Your task to perform on an android device: Go to Reddit.com Image 0: 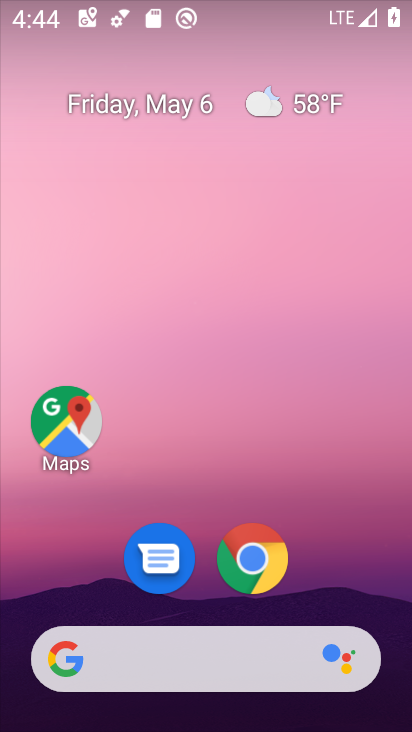
Step 0: drag from (342, 620) to (358, 82)
Your task to perform on an android device: Go to Reddit.com Image 1: 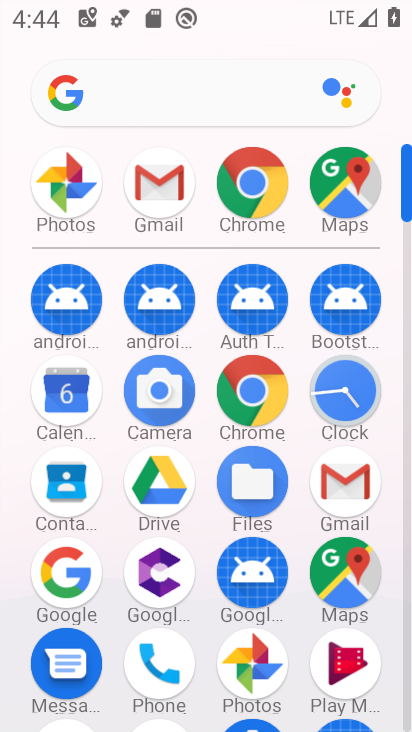
Step 1: click (239, 386)
Your task to perform on an android device: Go to Reddit.com Image 2: 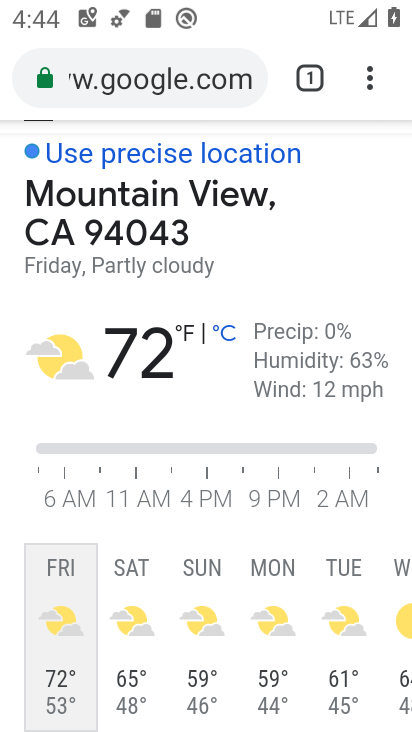
Step 2: click (166, 94)
Your task to perform on an android device: Go to Reddit.com Image 3: 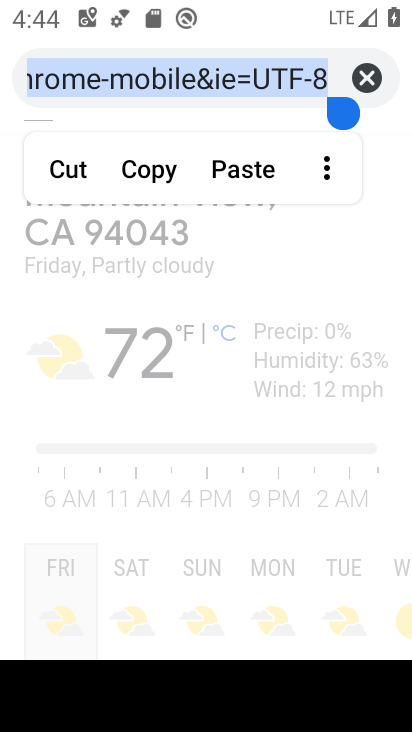
Step 3: click (360, 73)
Your task to perform on an android device: Go to Reddit.com Image 4: 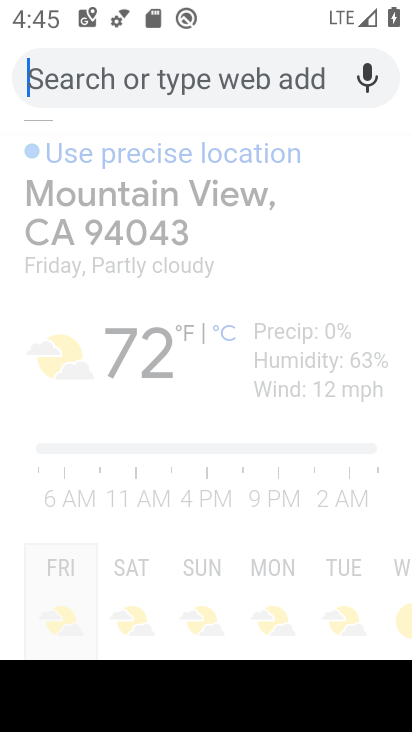
Step 4: type "reddit.com"
Your task to perform on an android device: Go to Reddit.com Image 5: 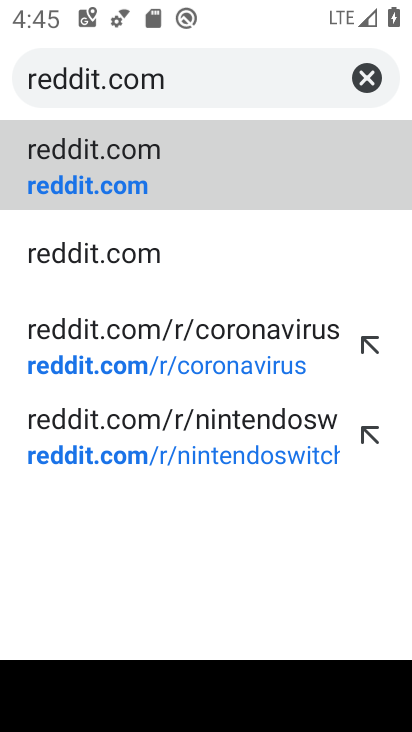
Step 5: click (173, 169)
Your task to perform on an android device: Go to Reddit.com Image 6: 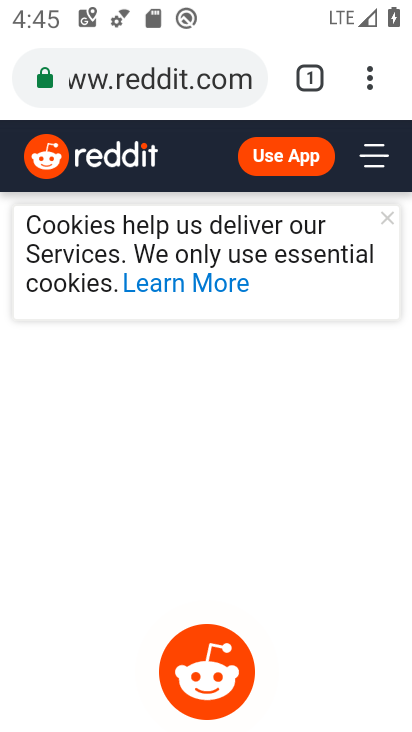
Step 6: task complete